Your task to perform on an android device: change timer sound Image 0: 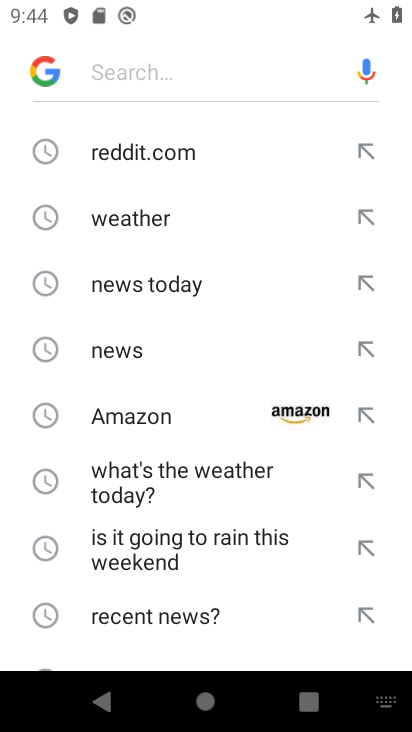
Step 0: press home button
Your task to perform on an android device: change timer sound Image 1: 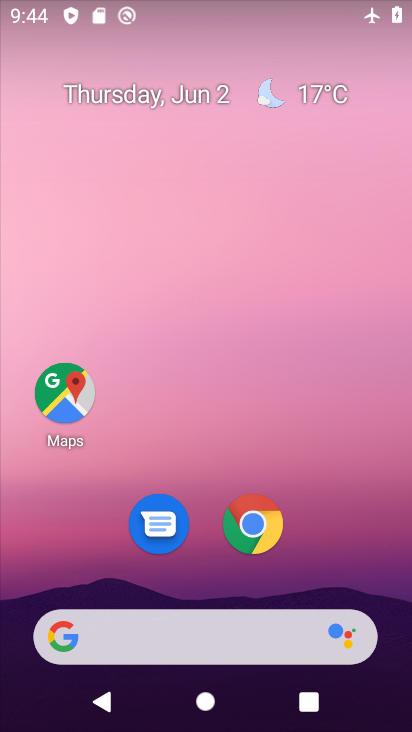
Step 1: drag from (223, 414) to (179, 8)
Your task to perform on an android device: change timer sound Image 2: 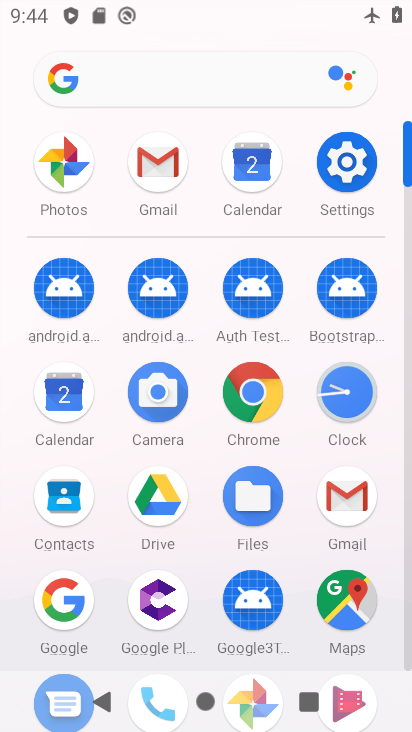
Step 2: click (335, 382)
Your task to perform on an android device: change timer sound Image 3: 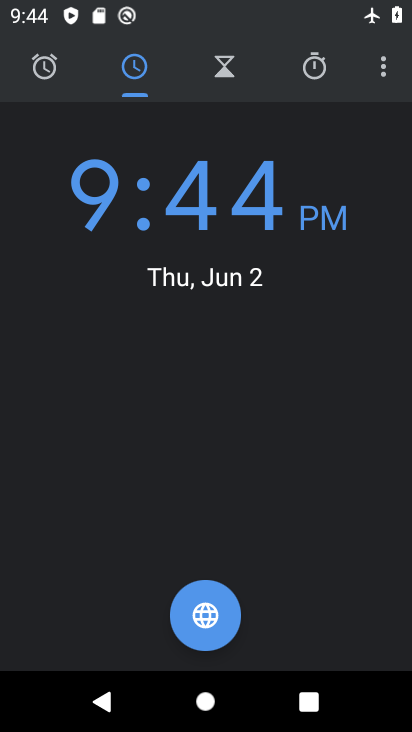
Step 3: click (384, 73)
Your task to perform on an android device: change timer sound Image 4: 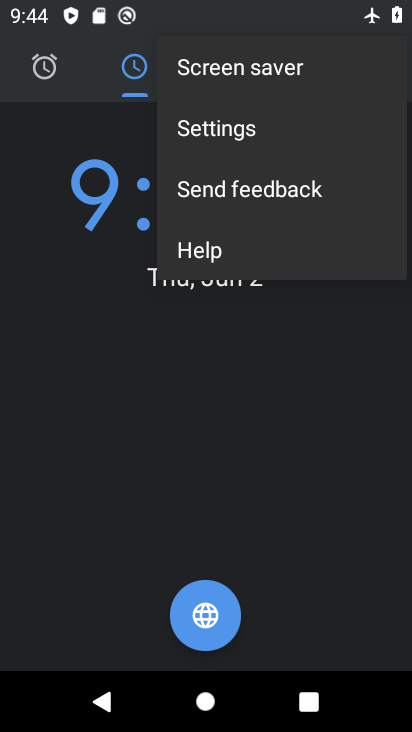
Step 4: click (294, 124)
Your task to perform on an android device: change timer sound Image 5: 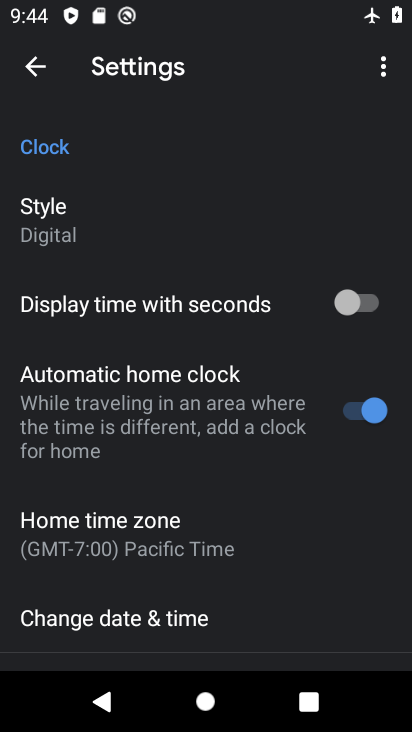
Step 5: drag from (245, 492) to (221, 109)
Your task to perform on an android device: change timer sound Image 6: 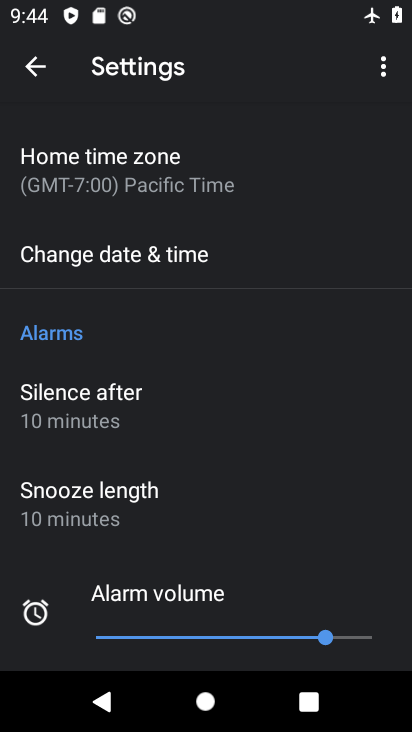
Step 6: drag from (245, 538) to (246, 58)
Your task to perform on an android device: change timer sound Image 7: 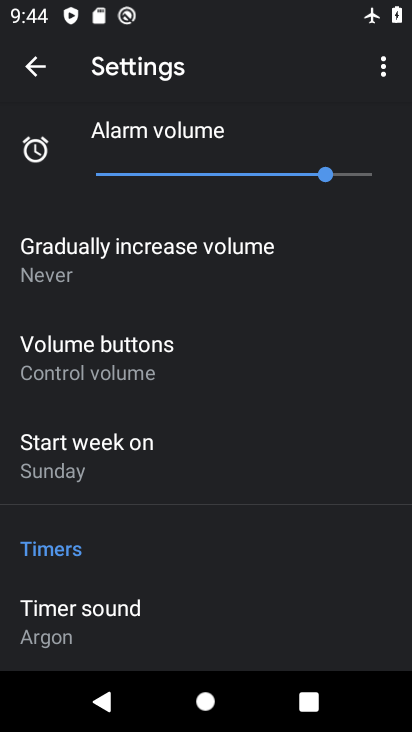
Step 7: drag from (230, 422) to (235, 182)
Your task to perform on an android device: change timer sound Image 8: 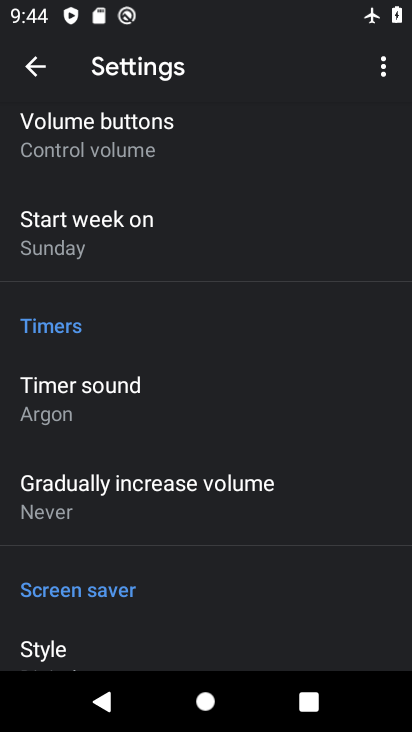
Step 8: click (175, 408)
Your task to perform on an android device: change timer sound Image 9: 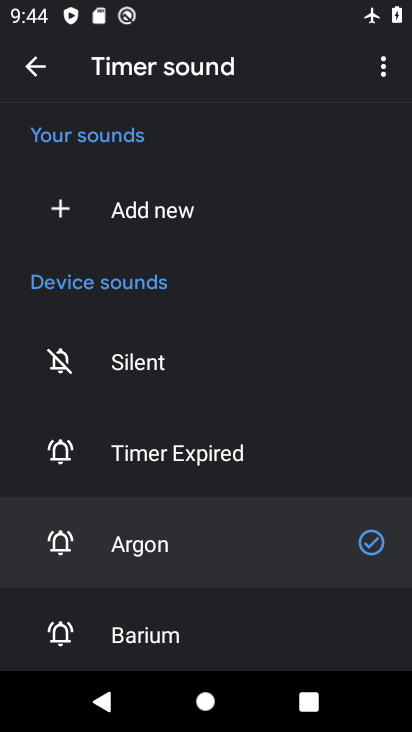
Step 9: click (166, 637)
Your task to perform on an android device: change timer sound Image 10: 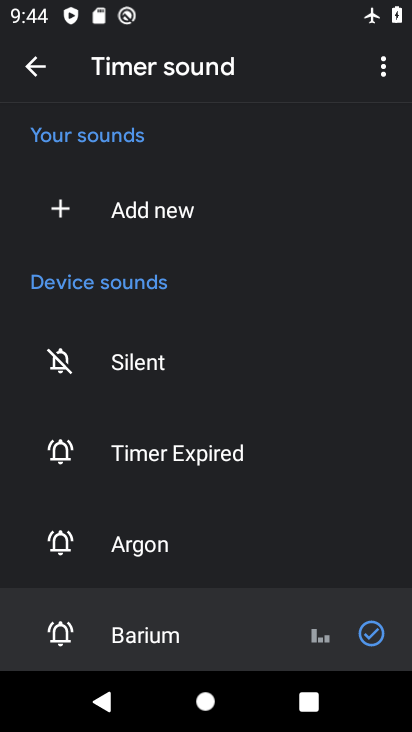
Step 10: task complete